Your task to perform on an android device: Turn on the flashlight Image 0: 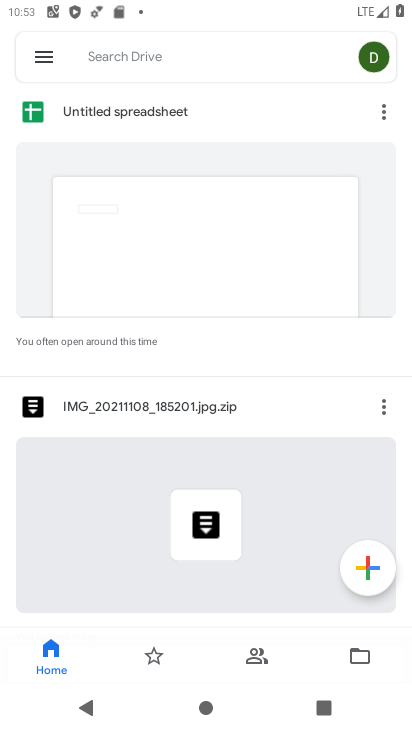
Step 0: press home button
Your task to perform on an android device: Turn on the flashlight Image 1: 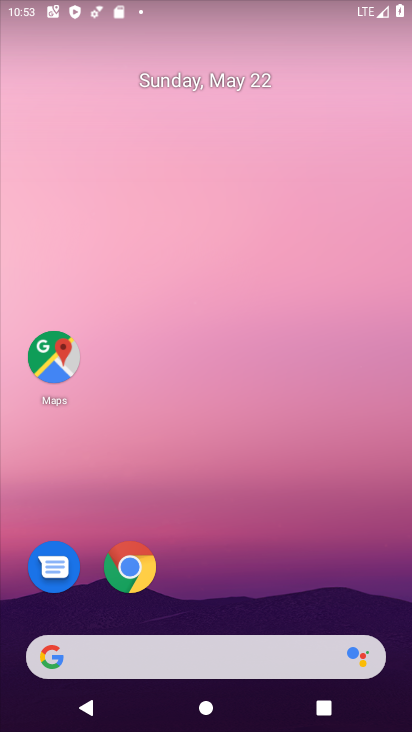
Step 1: drag from (235, 20) to (281, 567)
Your task to perform on an android device: Turn on the flashlight Image 2: 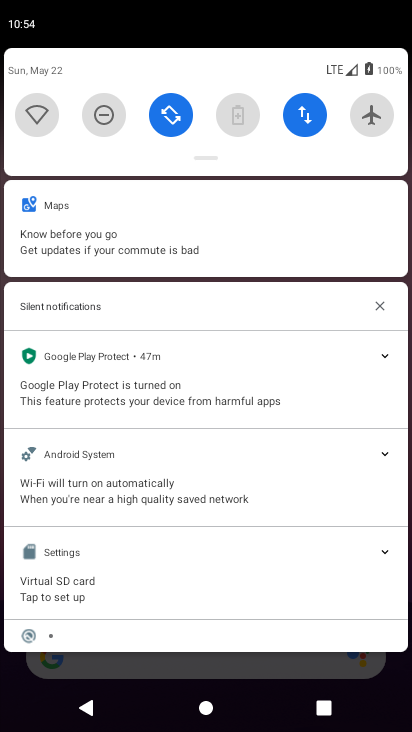
Step 2: drag from (197, 154) to (183, 407)
Your task to perform on an android device: Turn on the flashlight Image 3: 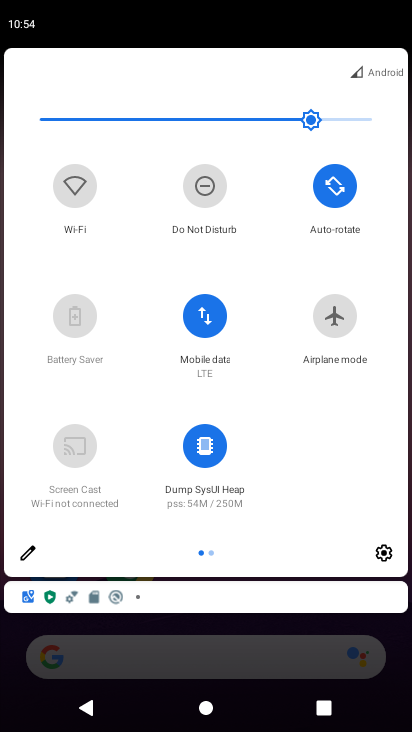
Step 3: click (23, 553)
Your task to perform on an android device: Turn on the flashlight Image 4: 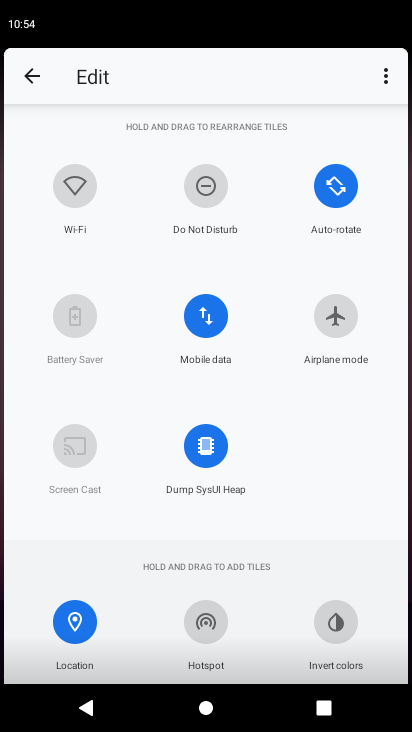
Step 4: task complete